Your task to perform on an android device: turn off translation in the chrome app Image 0: 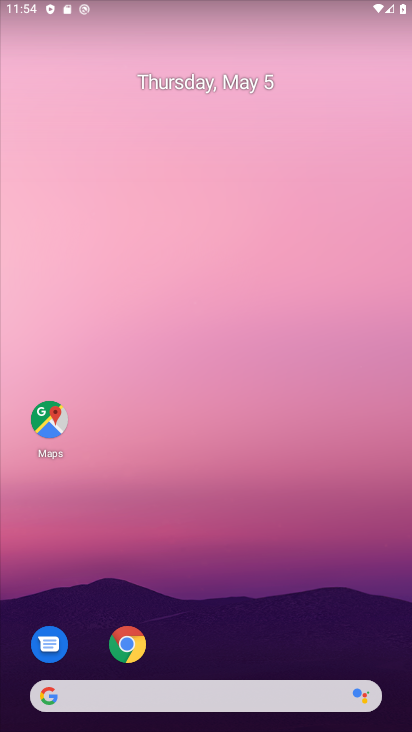
Step 0: click (132, 642)
Your task to perform on an android device: turn off translation in the chrome app Image 1: 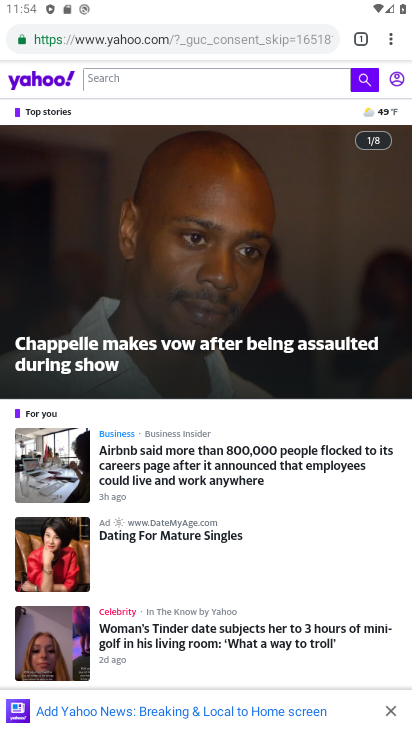
Step 1: click (389, 33)
Your task to perform on an android device: turn off translation in the chrome app Image 2: 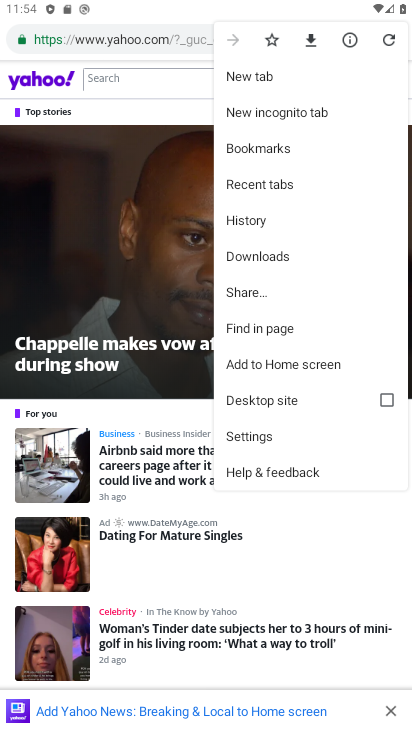
Step 2: click (282, 438)
Your task to perform on an android device: turn off translation in the chrome app Image 3: 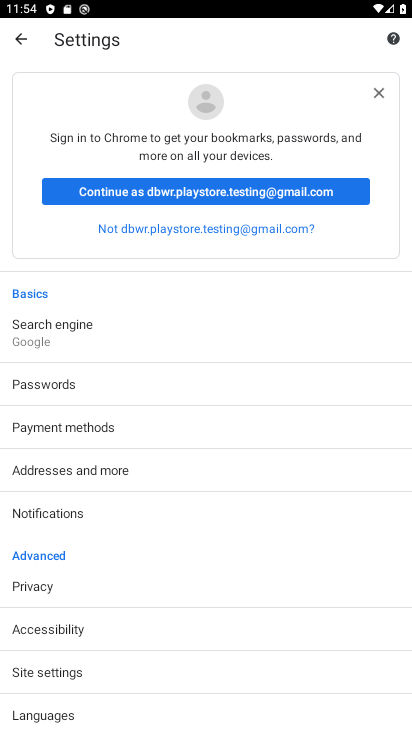
Step 3: drag from (101, 688) to (207, 359)
Your task to perform on an android device: turn off translation in the chrome app Image 4: 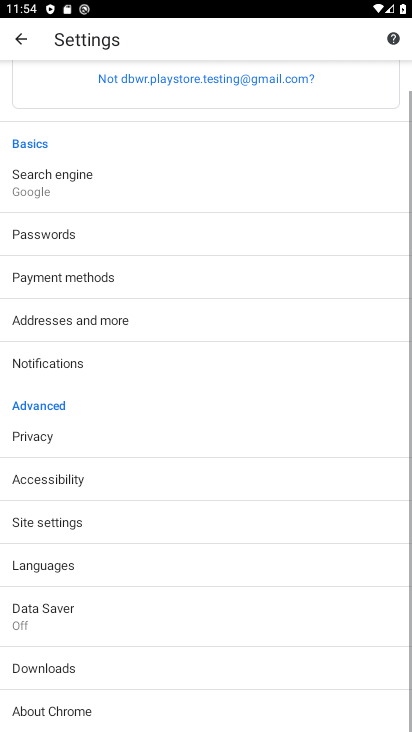
Step 4: click (81, 554)
Your task to perform on an android device: turn off translation in the chrome app Image 5: 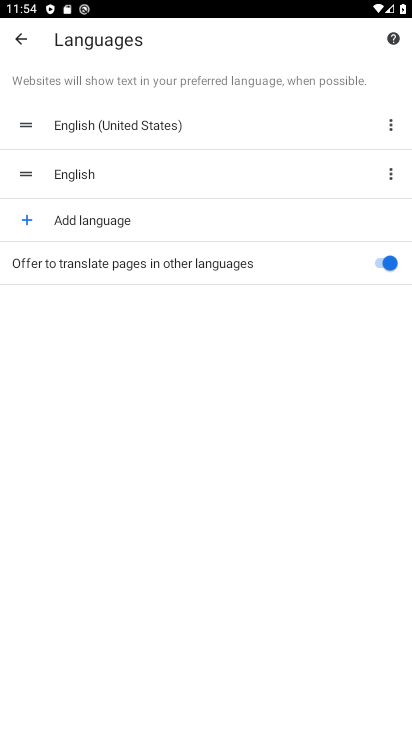
Step 5: click (389, 266)
Your task to perform on an android device: turn off translation in the chrome app Image 6: 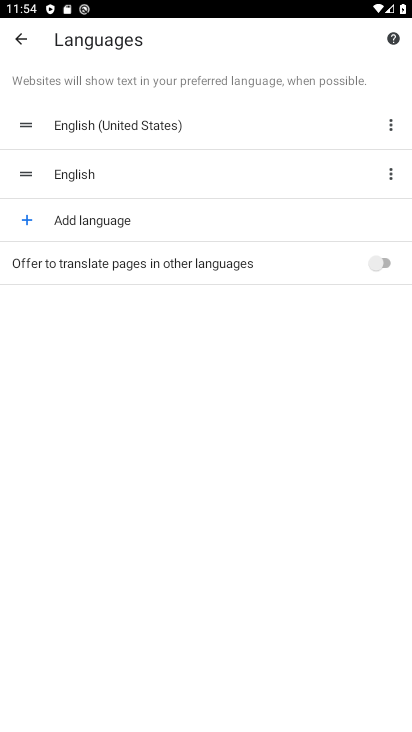
Step 6: task complete